Your task to perform on an android device: Set the phone to "Do not disturb". Image 0: 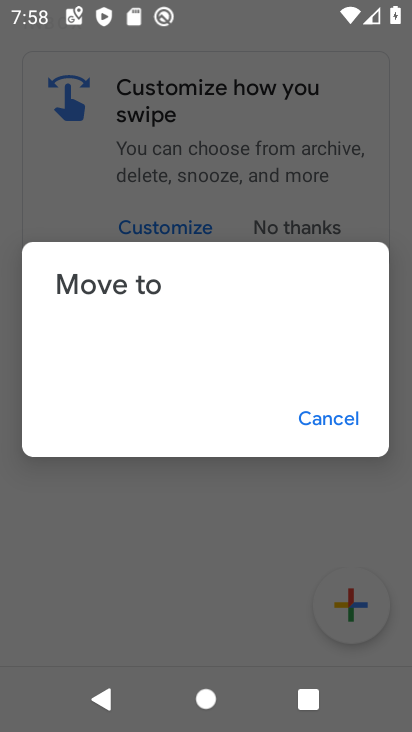
Step 0: press home button
Your task to perform on an android device: Set the phone to "Do not disturb". Image 1: 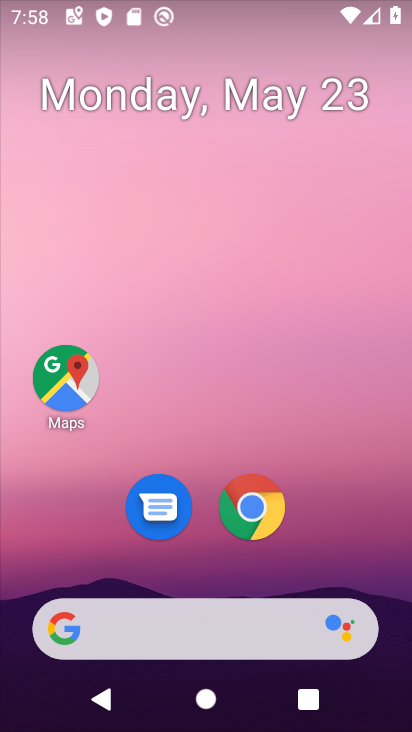
Step 1: drag from (349, 535) to (333, 200)
Your task to perform on an android device: Set the phone to "Do not disturb". Image 2: 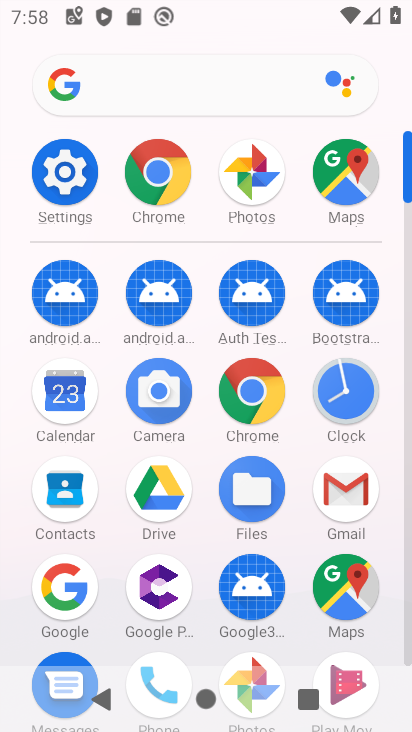
Step 2: click (71, 194)
Your task to perform on an android device: Set the phone to "Do not disturb". Image 3: 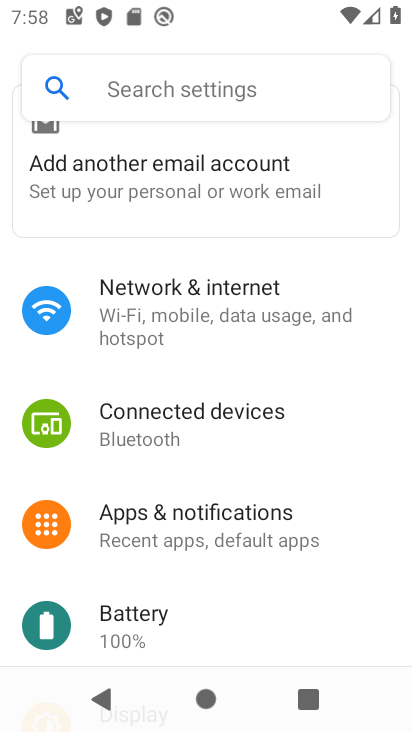
Step 3: drag from (197, 576) to (197, 292)
Your task to perform on an android device: Set the phone to "Do not disturb". Image 4: 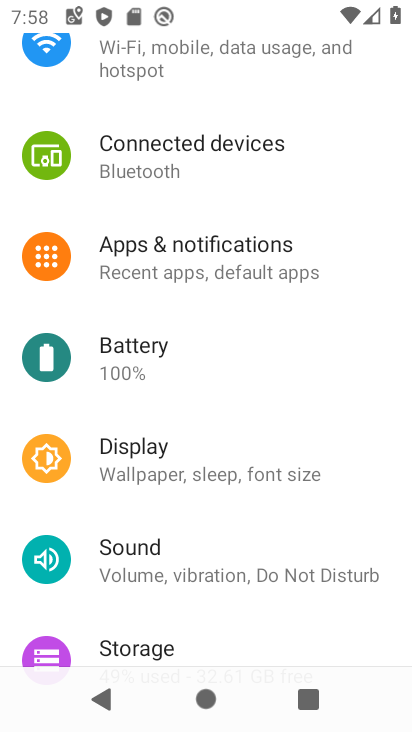
Step 4: click (181, 546)
Your task to perform on an android device: Set the phone to "Do not disturb". Image 5: 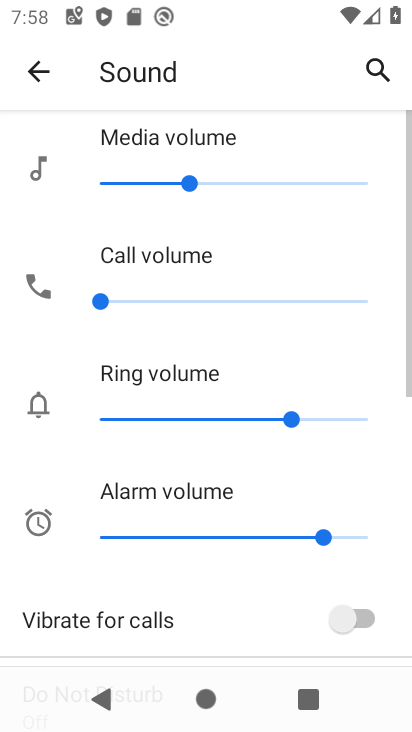
Step 5: task complete